Your task to perform on an android device: change your default location settings in chrome Image 0: 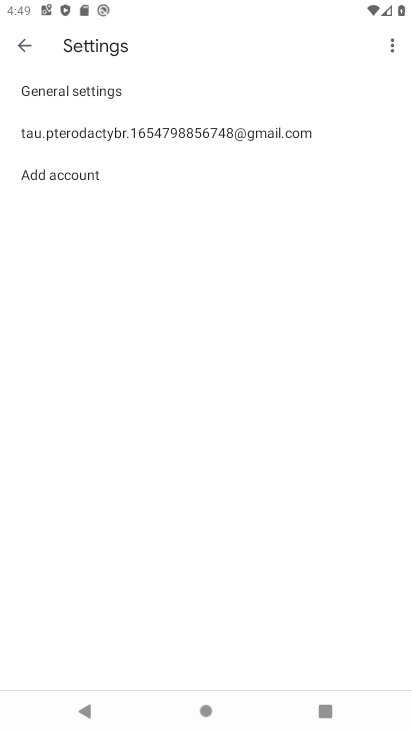
Step 0: press home button
Your task to perform on an android device: change your default location settings in chrome Image 1: 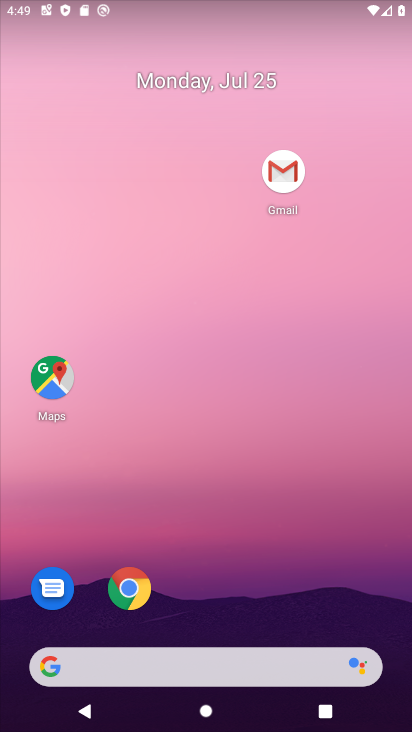
Step 1: drag from (320, 611) to (340, 159)
Your task to perform on an android device: change your default location settings in chrome Image 2: 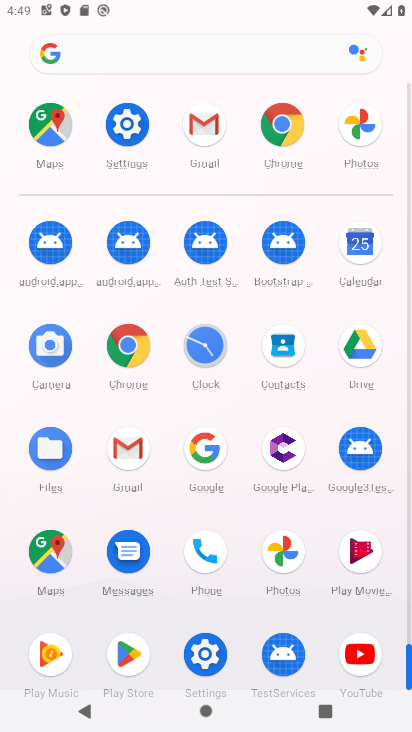
Step 2: click (288, 120)
Your task to perform on an android device: change your default location settings in chrome Image 3: 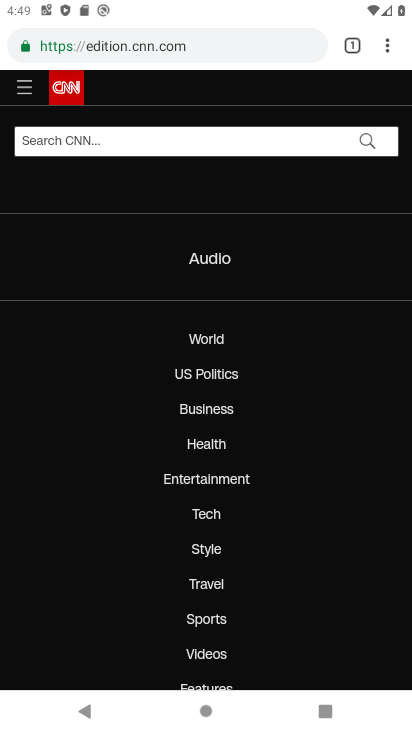
Step 3: drag from (389, 38) to (226, 538)
Your task to perform on an android device: change your default location settings in chrome Image 4: 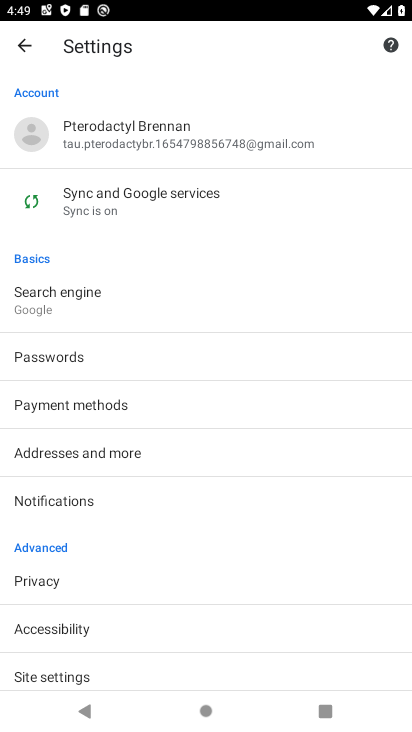
Step 4: click (67, 679)
Your task to perform on an android device: change your default location settings in chrome Image 5: 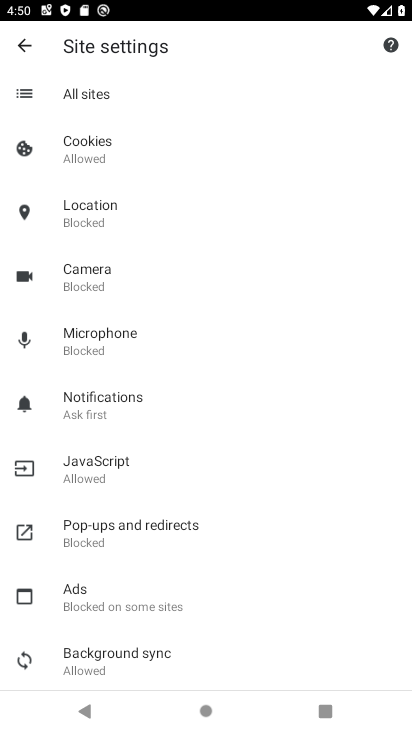
Step 5: click (102, 214)
Your task to perform on an android device: change your default location settings in chrome Image 6: 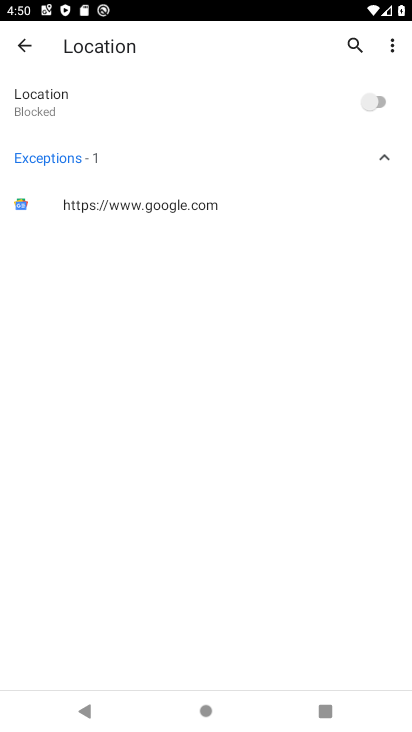
Step 6: click (394, 108)
Your task to perform on an android device: change your default location settings in chrome Image 7: 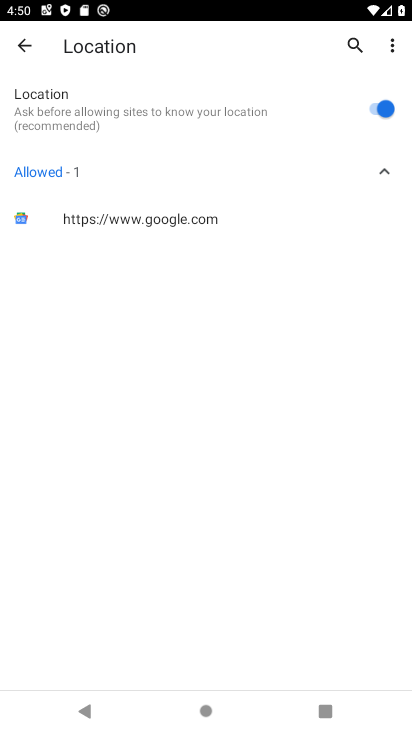
Step 7: task complete